Your task to perform on an android device: Go to location settings Image 0: 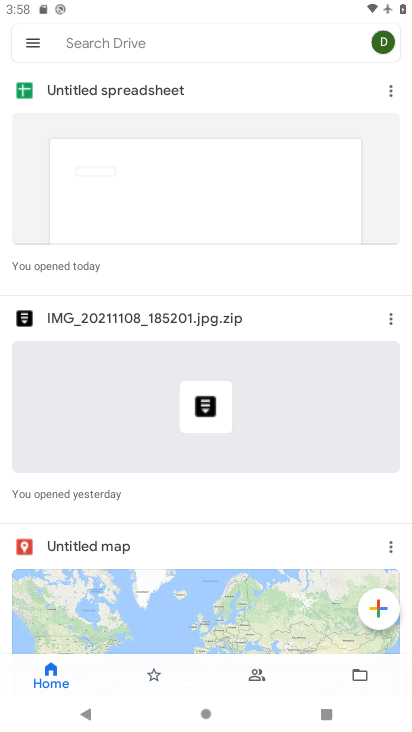
Step 0: press home button
Your task to perform on an android device: Go to location settings Image 1: 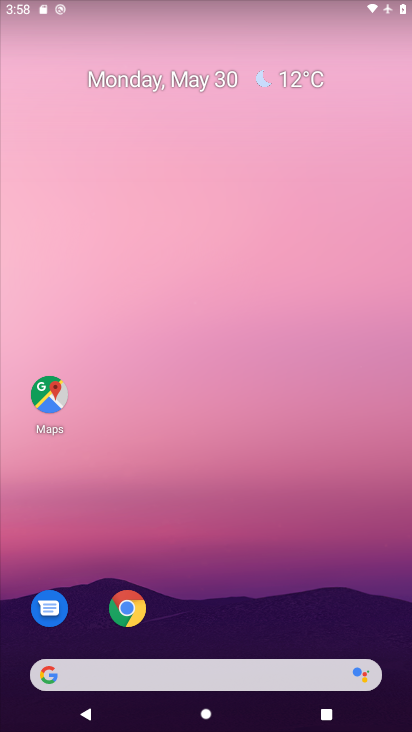
Step 1: drag from (277, 569) to (214, 22)
Your task to perform on an android device: Go to location settings Image 2: 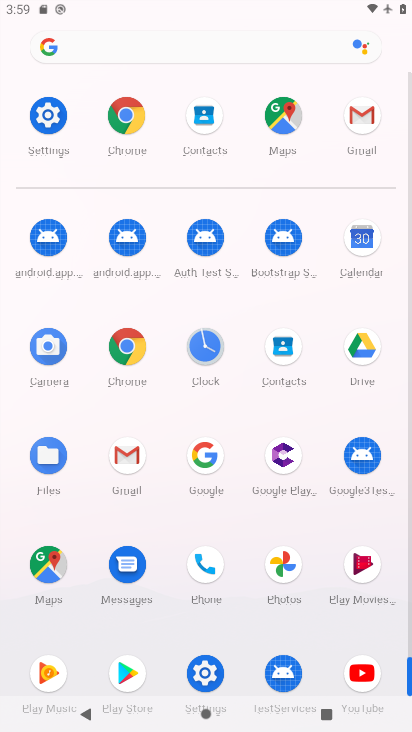
Step 2: click (45, 106)
Your task to perform on an android device: Go to location settings Image 3: 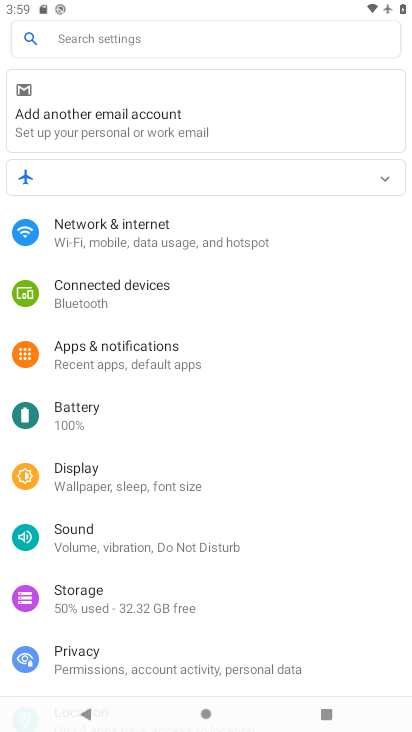
Step 3: click (189, 239)
Your task to perform on an android device: Go to location settings Image 4: 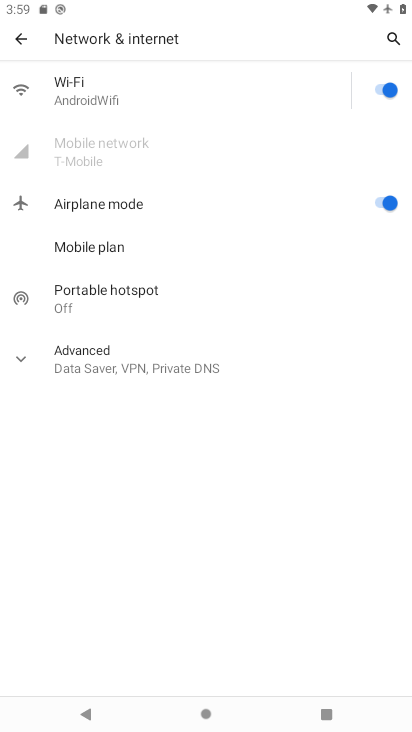
Step 4: press back button
Your task to perform on an android device: Go to location settings Image 5: 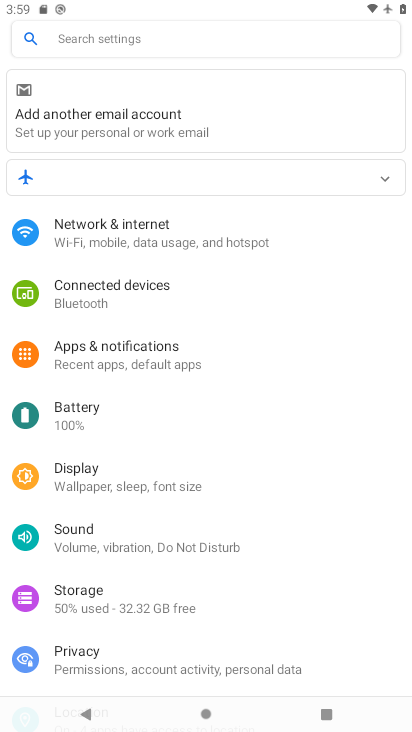
Step 5: drag from (230, 452) to (163, 44)
Your task to perform on an android device: Go to location settings Image 6: 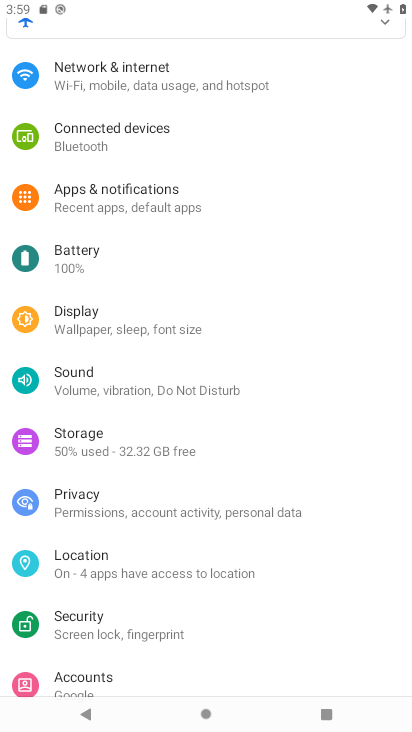
Step 6: click (106, 556)
Your task to perform on an android device: Go to location settings Image 7: 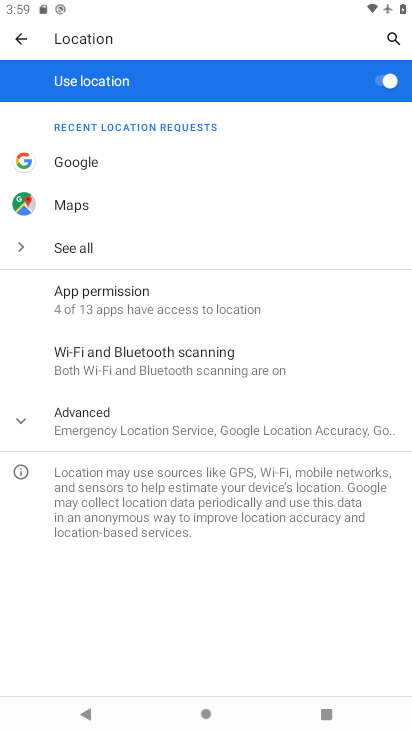
Step 7: task complete